Your task to perform on an android device: all mails in gmail Image 0: 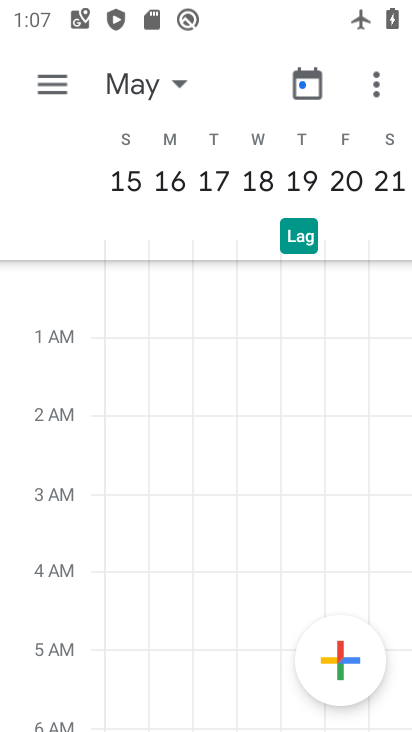
Step 0: press home button
Your task to perform on an android device: all mails in gmail Image 1: 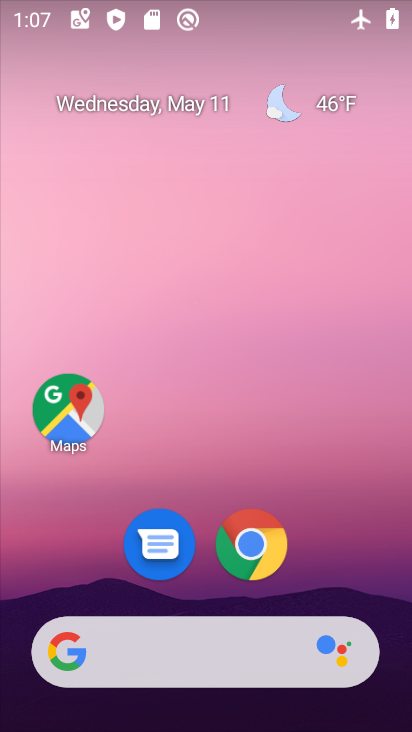
Step 1: drag from (390, 632) to (272, 134)
Your task to perform on an android device: all mails in gmail Image 2: 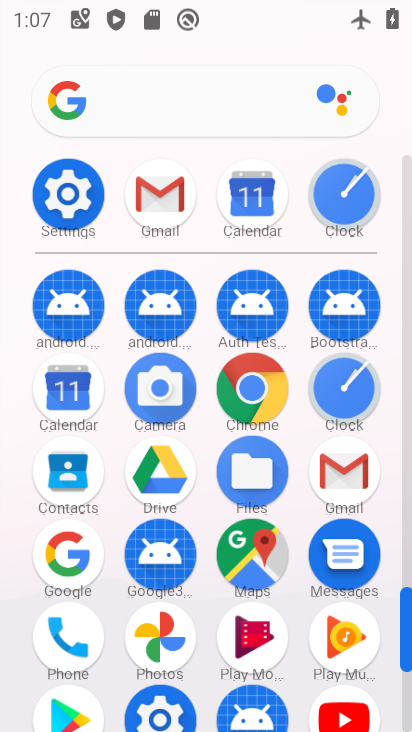
Step 2: click (405, 567)
Your task to perform on an android device: all mails in gmail Image 3: 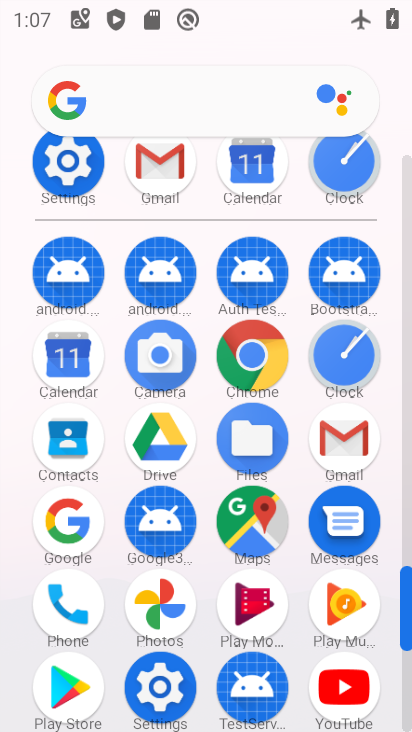
Step 3: click (407, 718)
Your task to perform on an android device: all mails in gmail Image 4: 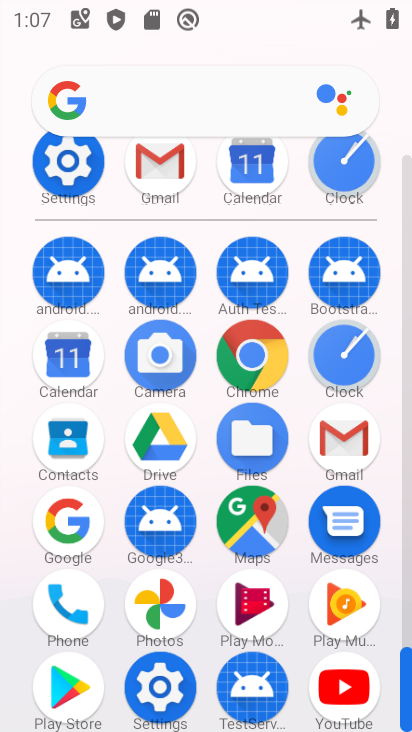
Step 4: click (343, 436)
Your task to perform on an android device: all mails in gmail Image 5: 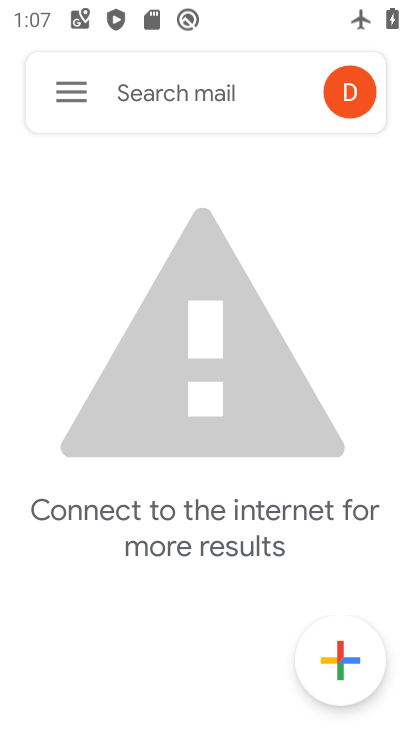
Step 5: click (69, 91)
Your task to perform on an android device: all mails in gmail Image 6: 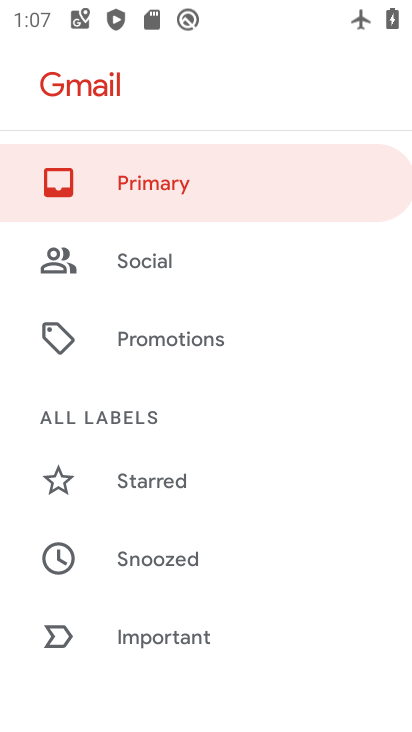
Step 6: drag from (264, 618) to (266, 152)
Your task to perform on an android device: all mails in gmail Image 7: 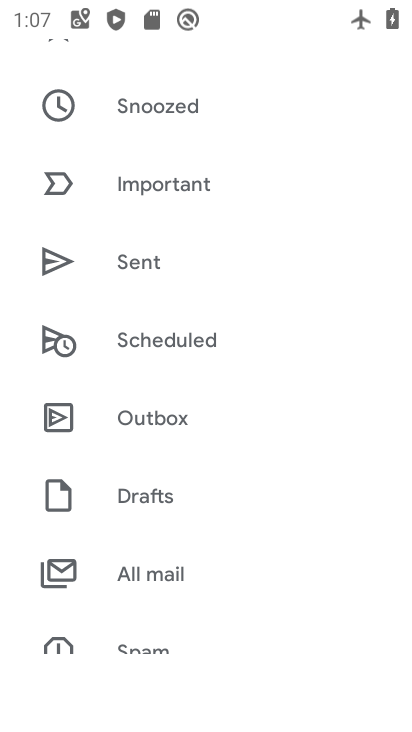
Step 7: click (163, 576)
Your task to perform on an android device: all mails in gmail Image 8: 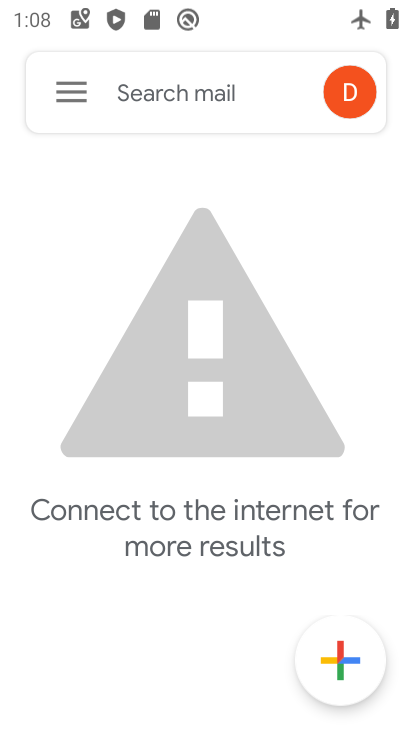
Step 8: task complete